Your task to perform on an android device: turn off sleep mode Image 0: 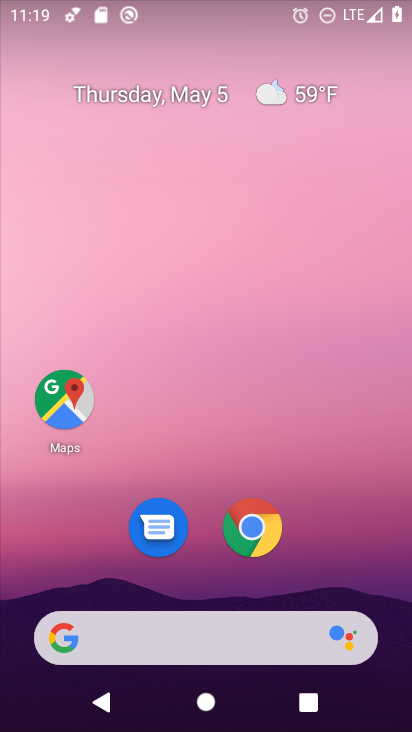
Step 0: drag from (250, 723) to (253, 1)
Your task to perform on an android device: turn off sleep mode Image 1: 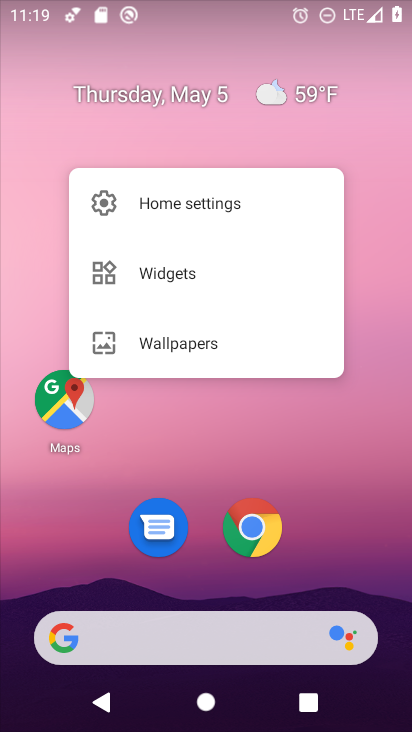
Step 1: click (266, 718)
Your task to perform on an android device: turn off sleep mode Image 2: 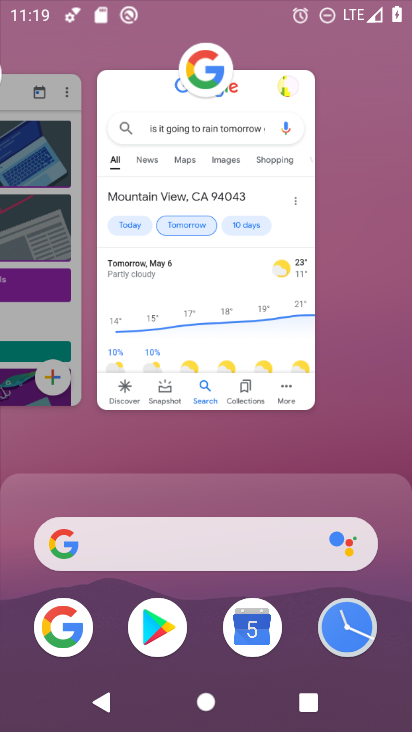
Step 2: press home button
Your task to perform on an android device: turn off sleep mode Image 3: 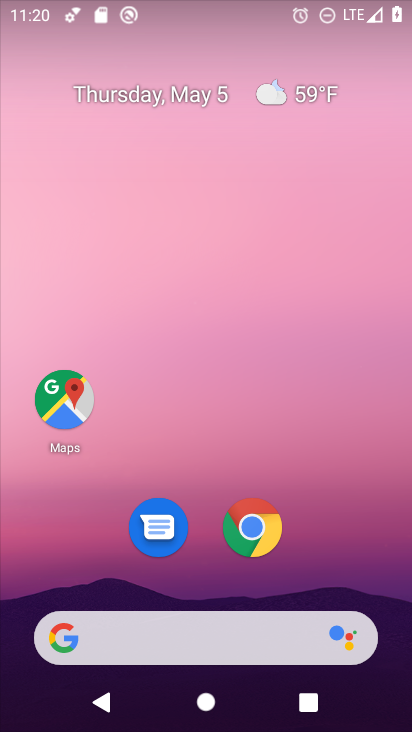
Step 3: drag from (263, 716) to (207, 155)
Your task to perform on an android device: turn off sleep mode Image 4: 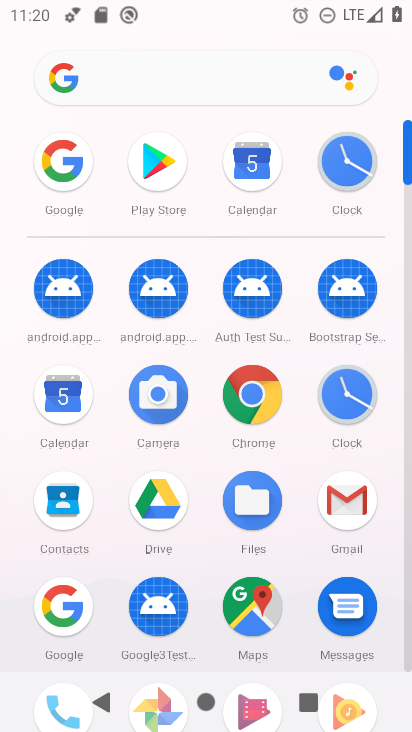
Step 4: drag from (244, 634) to (278, 142)
Your task to perform on an android device: turn off sleep mode Image 5: 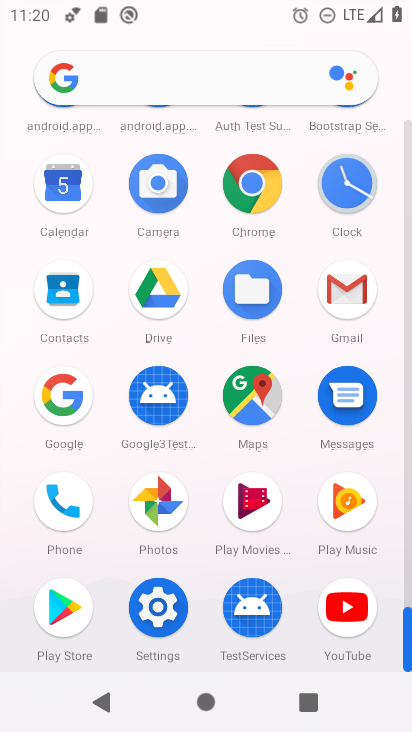
Step 5: click (150, 614)
Your task to perform on an android device: turn off sleep mode Image 6: 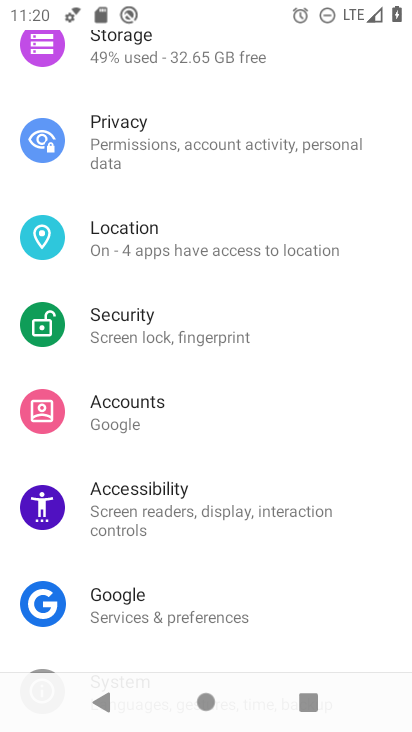
Step 6: drag from (306, 612) to (336, 54)
Your task to perform on an android device: turn off sleep mode Image 7: 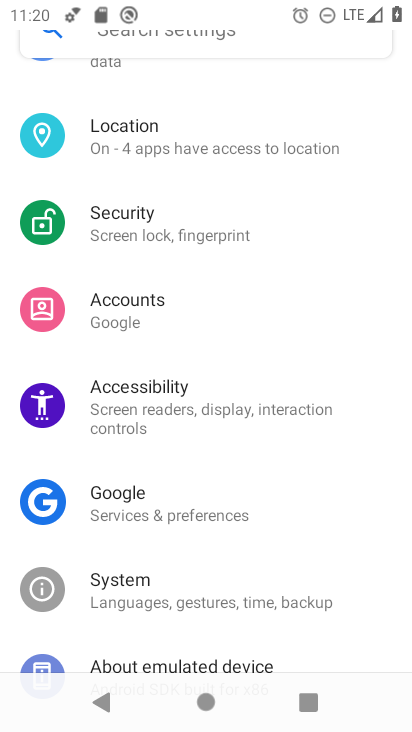
Step 7: drag from (344, 574) to (321, 70)
Your task to perform on an android device: turn off sleep mode Image 8: 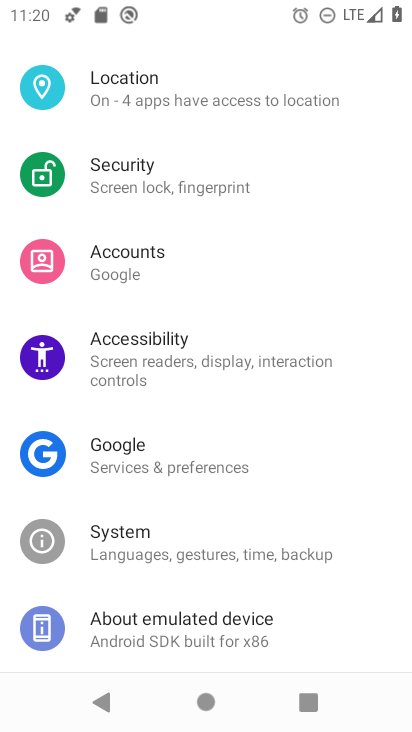
Step 8: drag from (317, 113) to (319, 651)
Your task to perform on an android device: turn off sleep mode Image 9: 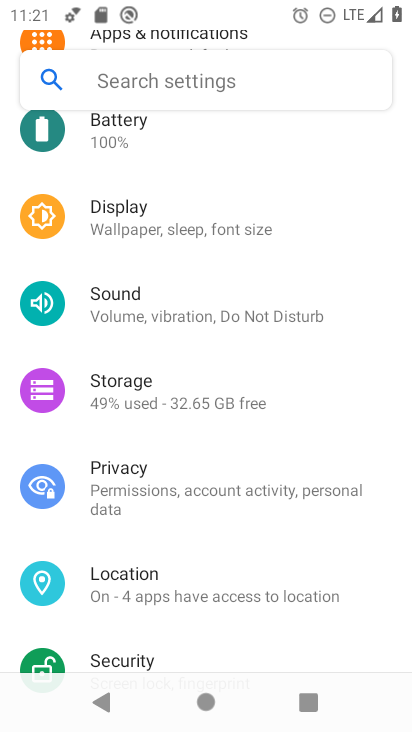
Step 9: click (195, 220)
Your task to perform on an android device: turn off sleep mode Image 10: 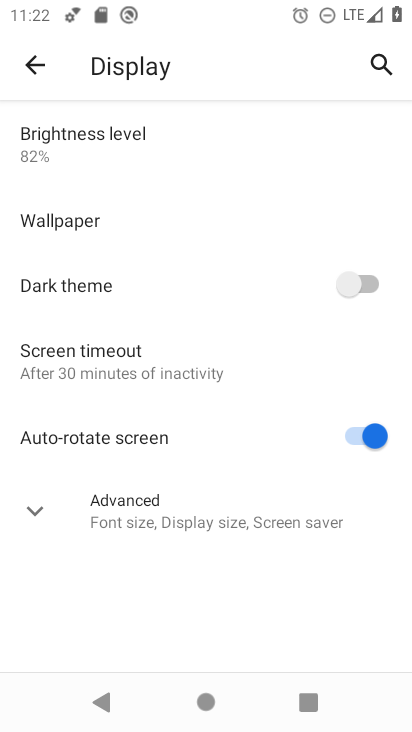
Step 10: task complete